Your task to perform on an android device: change alarm snooze length Image 0: 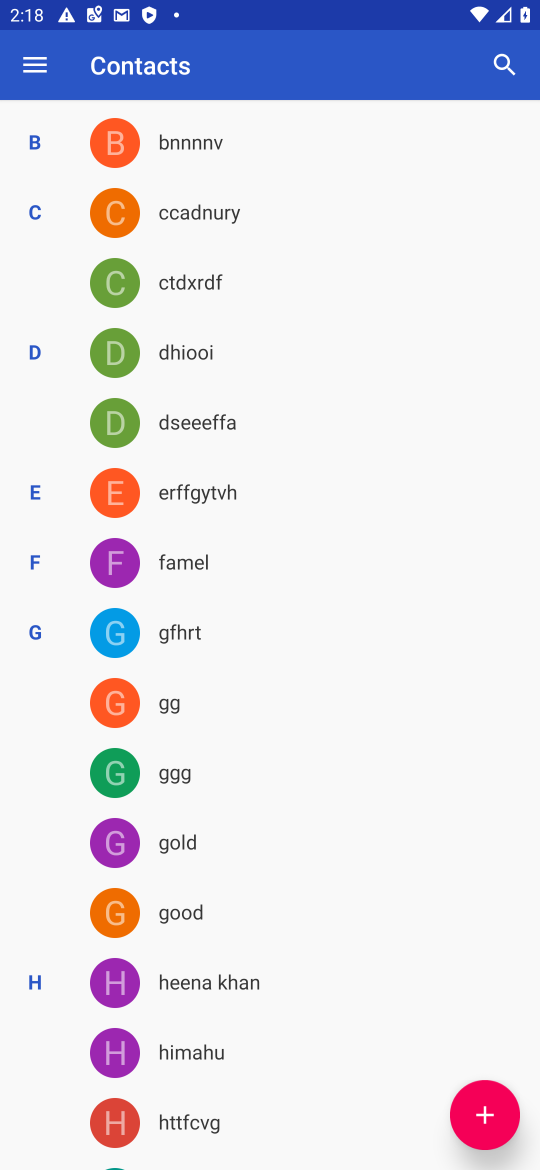
Step 0: press home button
Your task to perform on an android device: change alarm snooze length Image 1: 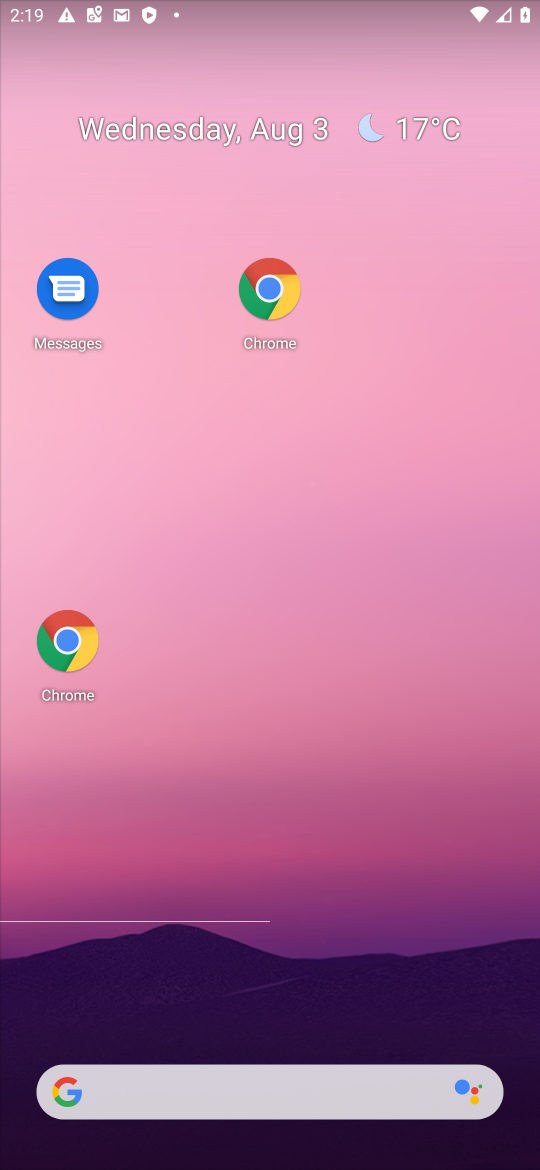
Step 1: drag from (359, 1011) to (401, 179)
Your task to perform on an android device: change alarm snooze length Image 2: 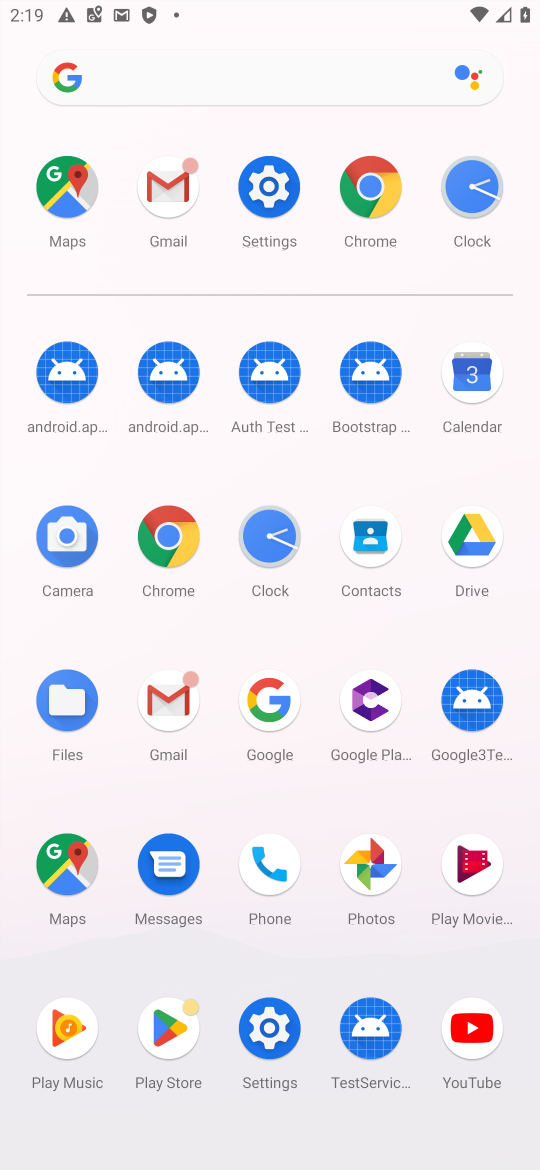
Step 2: click (279, 583)
Your task to perform on an android device: change alarm snooze length Image 3: 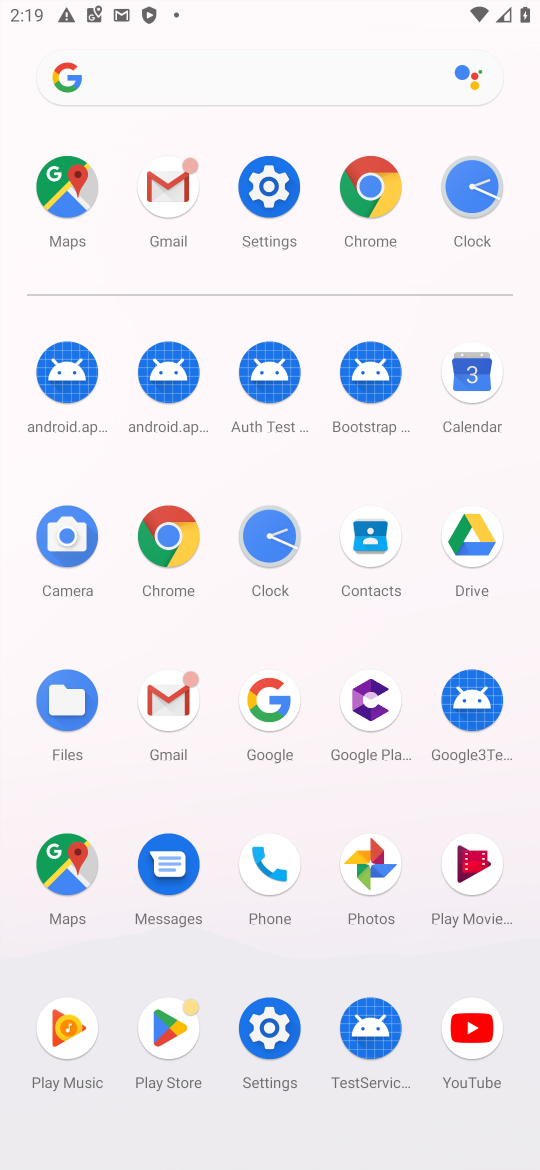
Step 3: click (279, 583)
Your task to perform on an android device: change alarm snooze length Image 4: 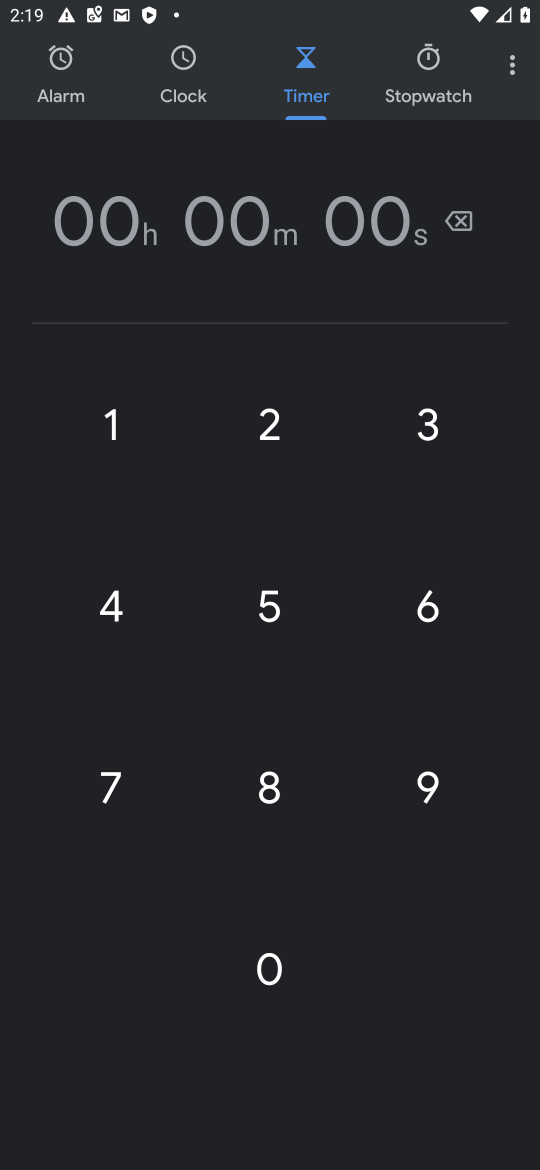
Step 4: click (510, 58)
Your task to perform on an android device: change alarm snooze length Image 5: 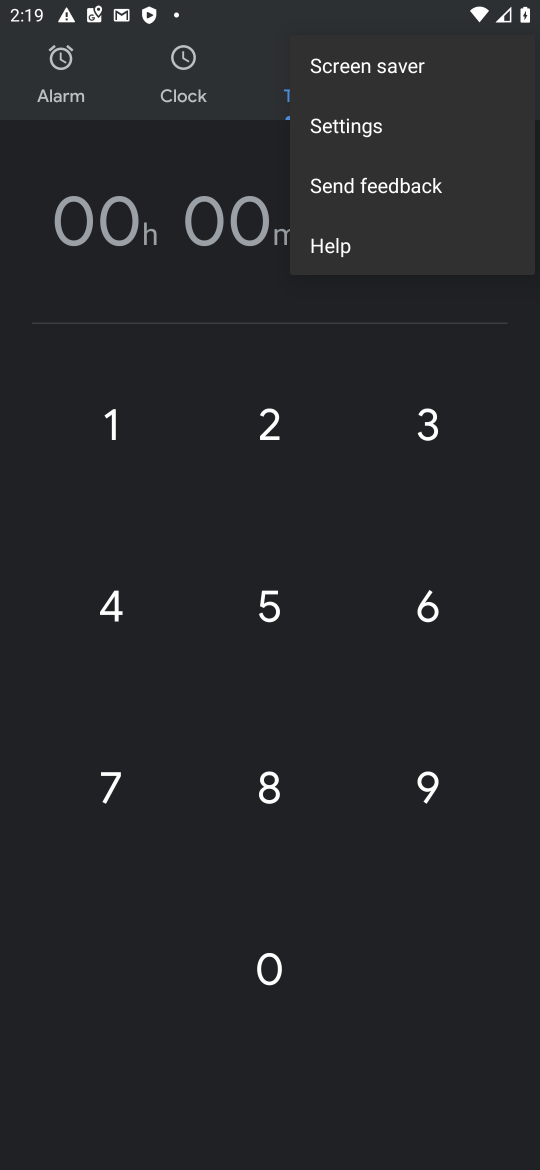
Step 5: click (347, 136)
Your task to perform on an android device: change alarm snooze length Image 6: 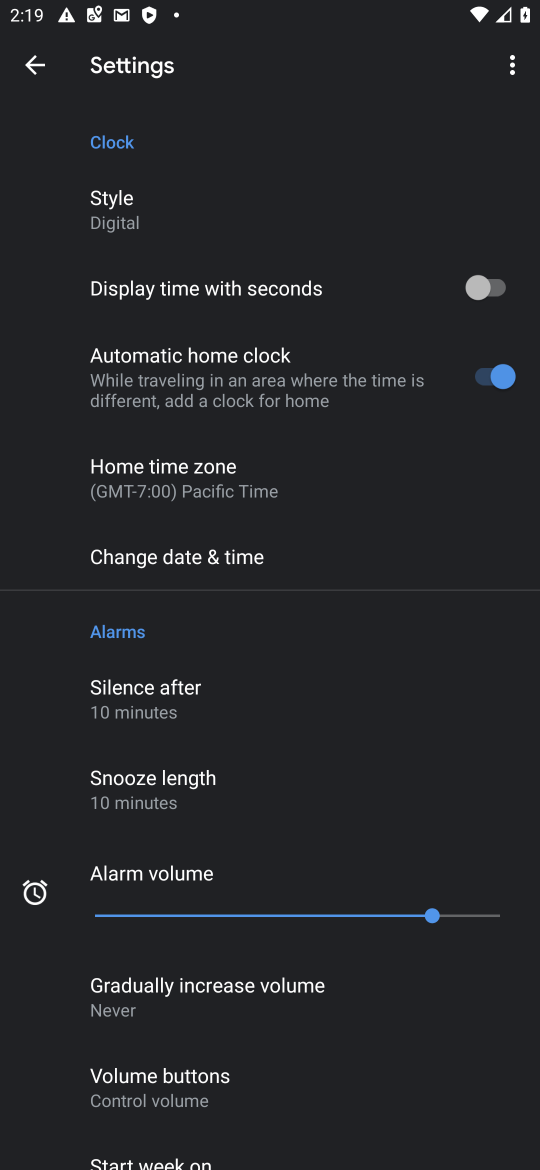
Step 6: task complete